Your task to perform on an android device: change keyboard looks Image 0: 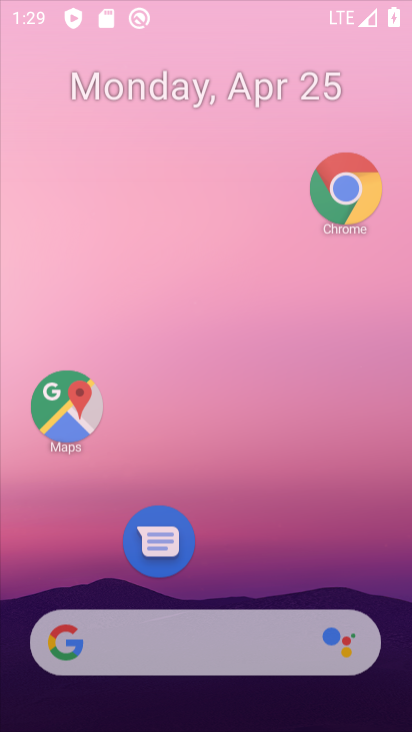
Step 0: click (326, 216)
Your task to perform on an android device: change keyboard looks Image 1: 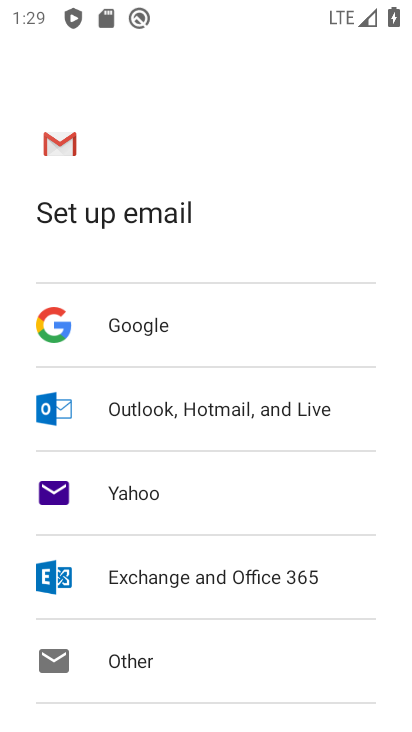
Step 1: press back button
Your task to perform on an android device: change keyboard looks Image 2: 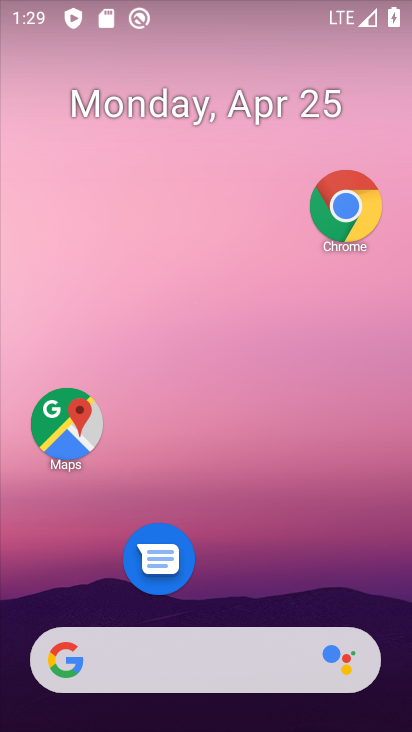
Step 2: drag from (227, 325) to (227, 38)
Your task to perform on an android device: change keyboard looks Image 3: 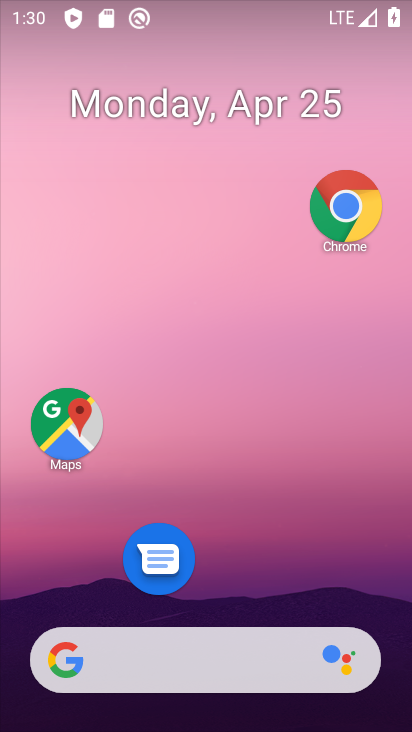
Step 3: drag from (254, 405) to (261, 152)
Your task to perform on an android device: change keyboard looks Image 4: 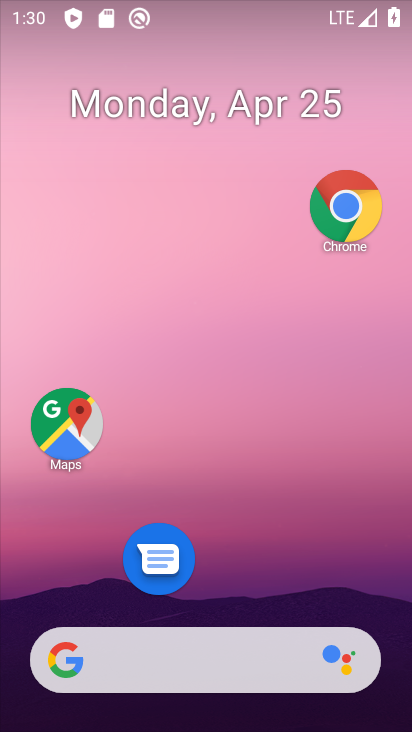
Step 4: drag from (249, 567) to (271, 32)
Your task to perform on an android device: change keyboard looks Image 5: 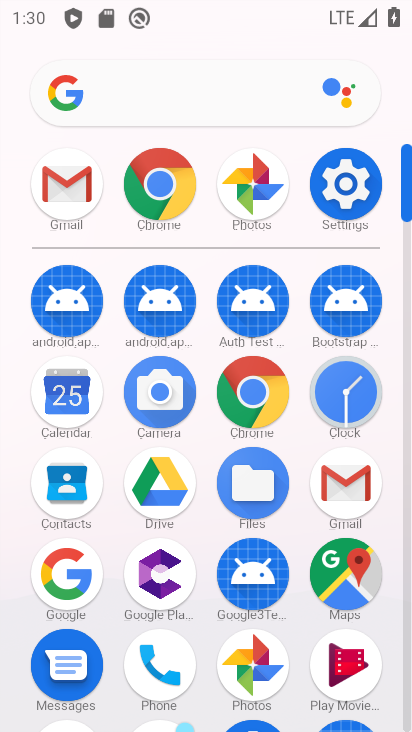
Step 5: click (348, 184)
Your task to perform on an android device: change keyboard looks Image 6: 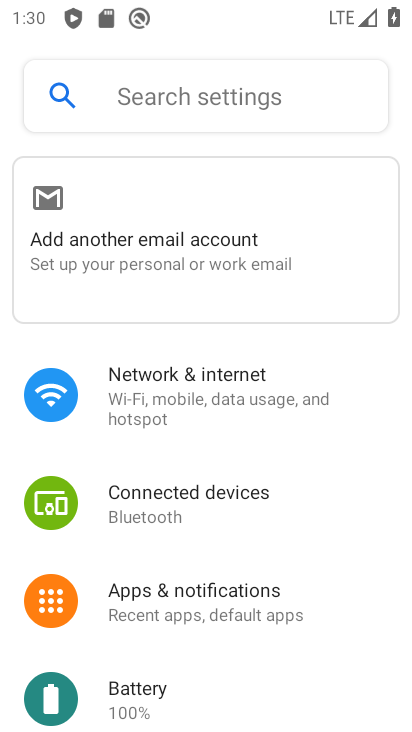
Step 6: drag from (153, 686) to (246, 55)
Your task to perform on an android device: change keyboard looks Image 7: 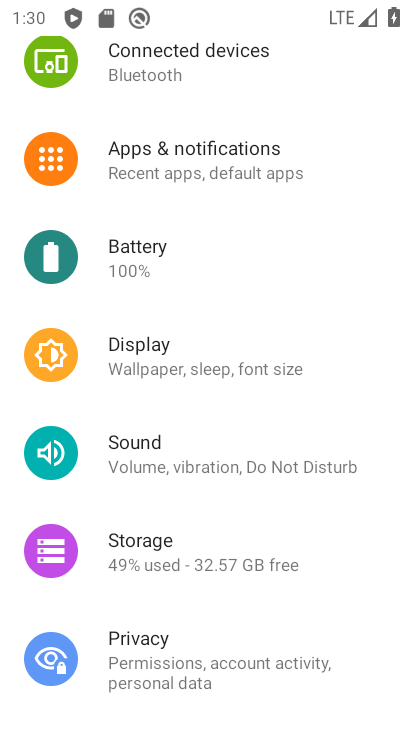
Step 7: drag from (187, 629) to (241, 3)
Your task to perform on an android device: change keyboard looks Image 8: 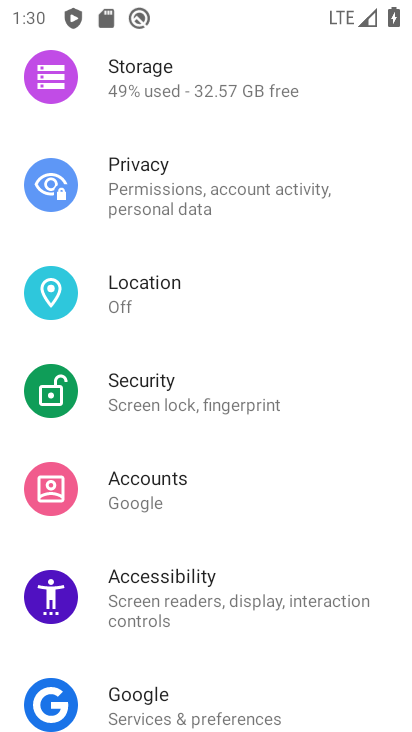
Step 8: drag from (205, 673) to (256, 51)
Your task to perform on an android device: change keyboard looks Image 9: 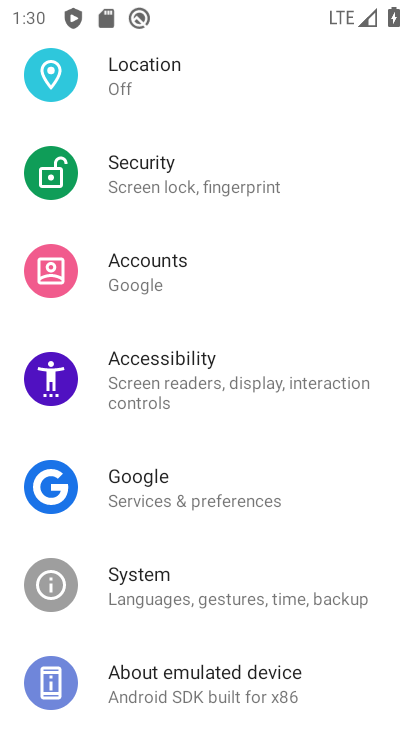
Step 9: drag from (212, 616) to (328, 76)
Your task to perform on an android device: change keyboard looks Image 10: 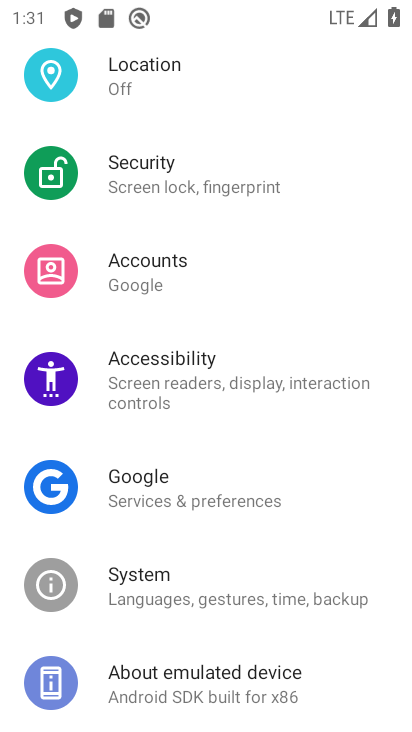
Step 10: drag from (203, 635) to (297, 99)
Your task to perform on an android device: change keyboard looks Image 11: 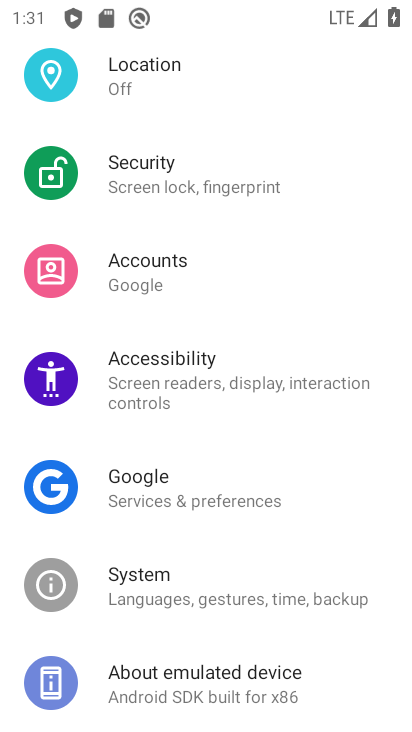
Step 11: click (181, 586)
Your task to perform on an android device: change keyboard looks Image 12: 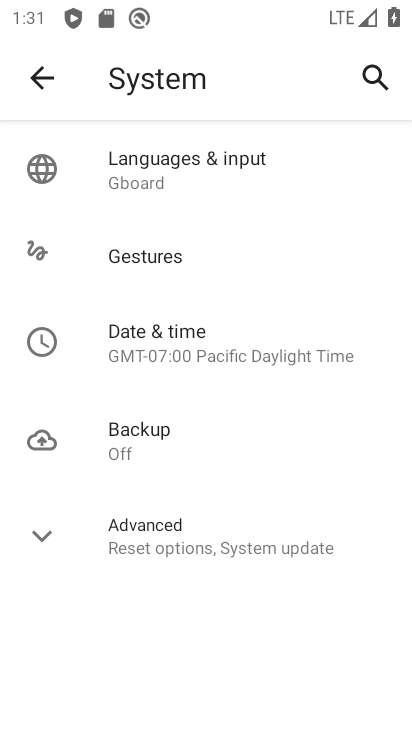
Step 12: click (162, 165)
Your task to perform on an android device: change keyboard looks Image 13: 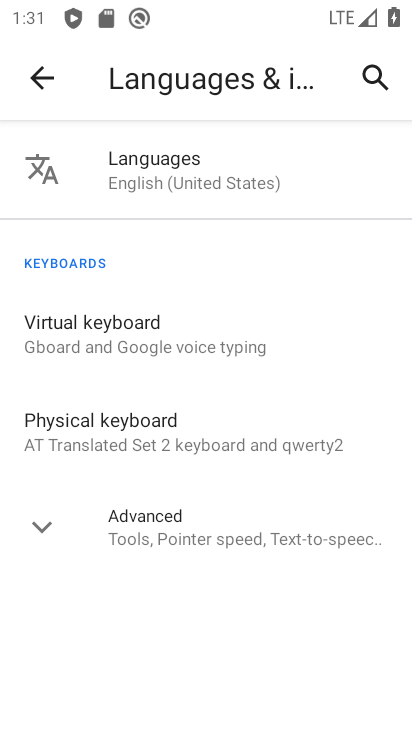
Step 13: click (173, 347)
Your task to perform on an android device: change keyboard looks Image 14: 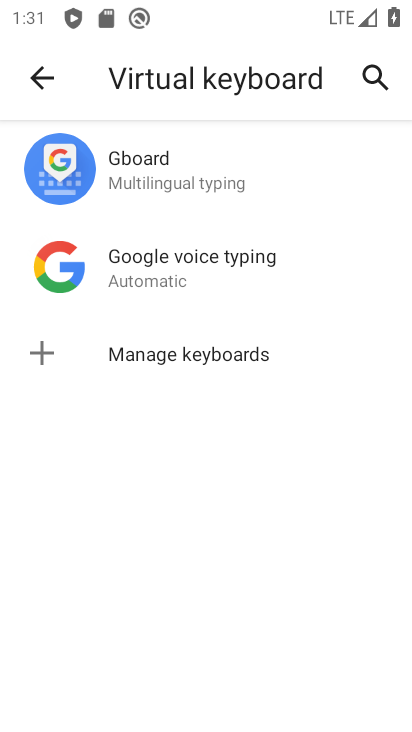
Step 14: click (147, 167)
Your task to perform on an android device: change keyboard looks Image 15: 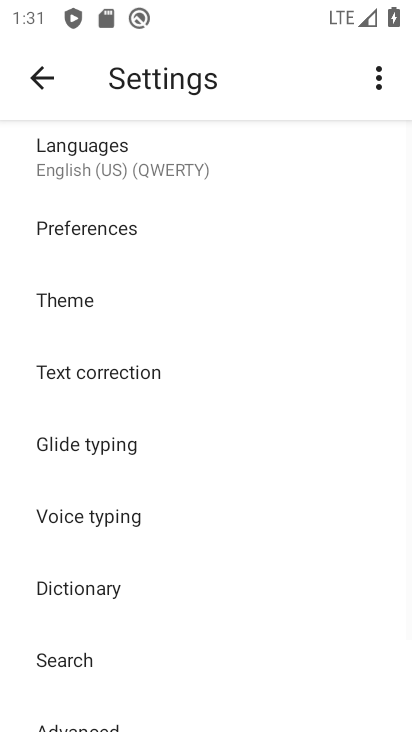
Step 15: click (84, 300)
Your task to perform on an android device: change keyboard looks Image 16: 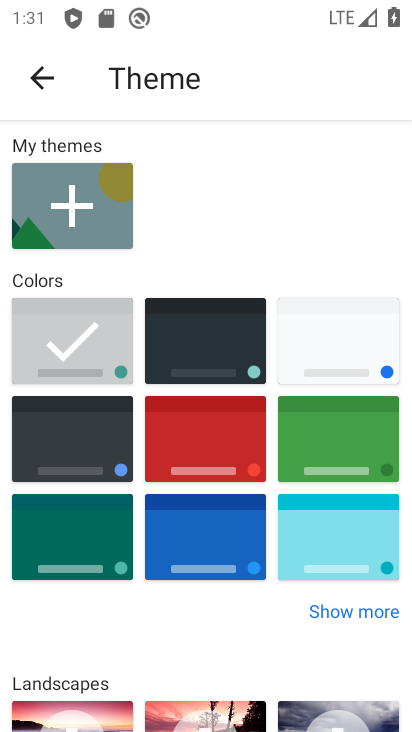
Step 16: click (220, 444)
Your task to perform on an android device: change keyboard looks Image 17: 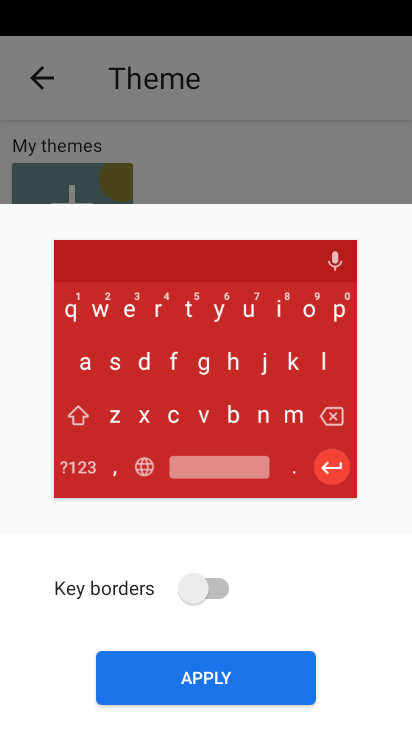
Step 17: click (149, 677)
Your task to perform on an android device: change keyboard looks Image 18: 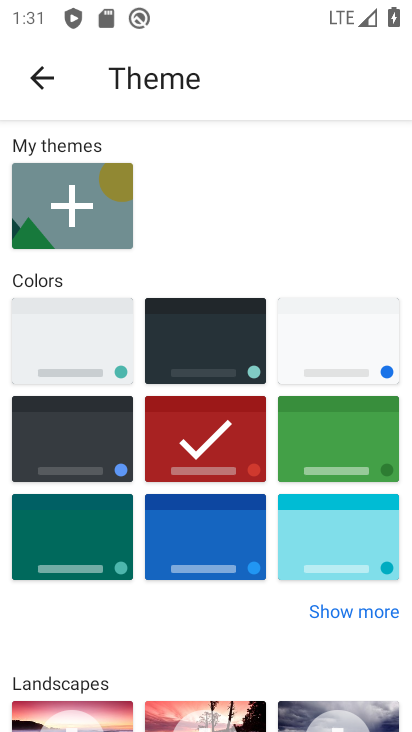
Step 18: task complete